Your task to perform on an android device: Open Google Chrome Image 0: 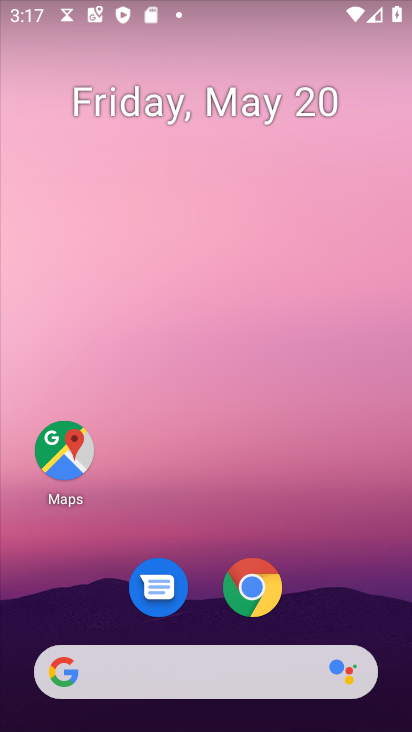
Step 0: drag from (344, 594) to (244, 187)
Your task to perform on an android device: Open Google Chrome Image 1: 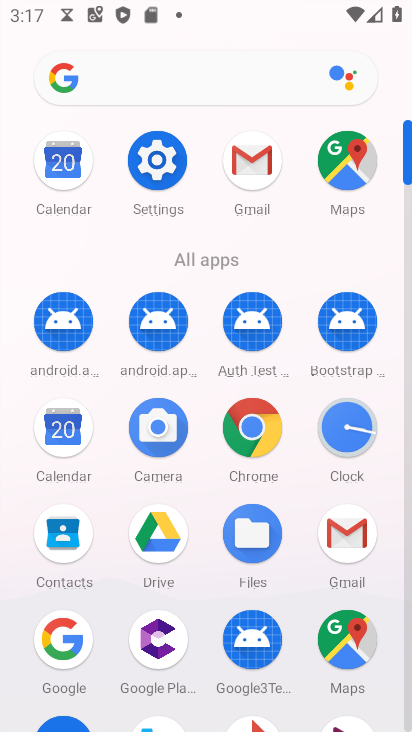
Step 1: click (261, 448)
Your task to perform on an android device: Open Google Chrome Image 2: 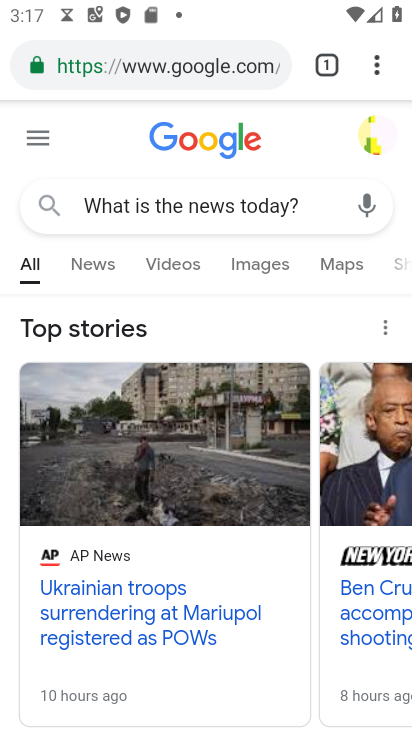
Step 2: task complete